Your task to perform on an android device: Open Google Chrome and open the bookmarks view Image 0: 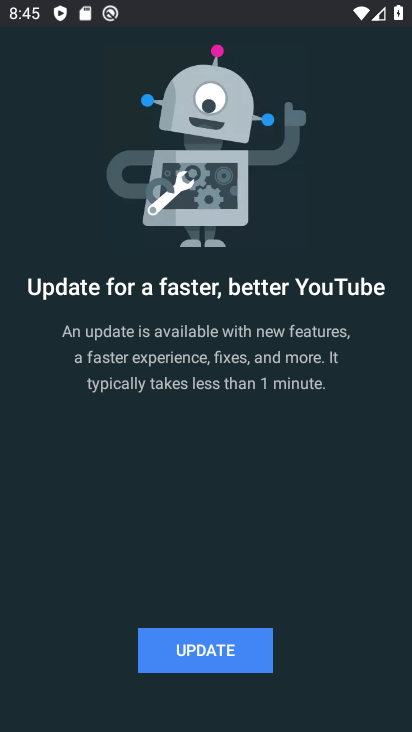
Step 0: press home button
Your task to perform on an android device: Open Google Chrome and open the bookmarks view Image 1: 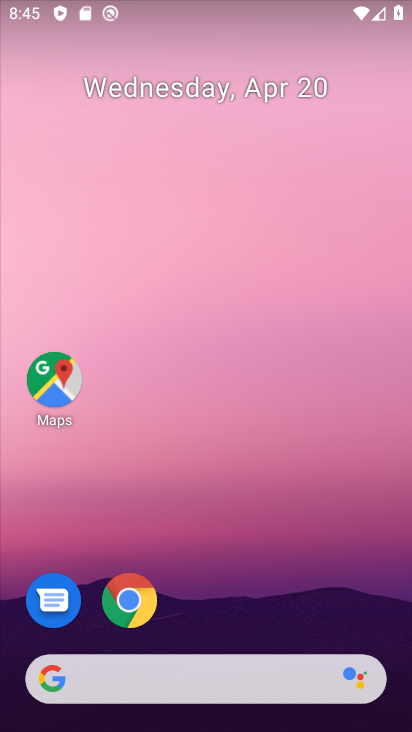
Step 1: click (140, 612)
Your task to perform on an android device: Open Google Chrome and open the bookmarks view Image 2: 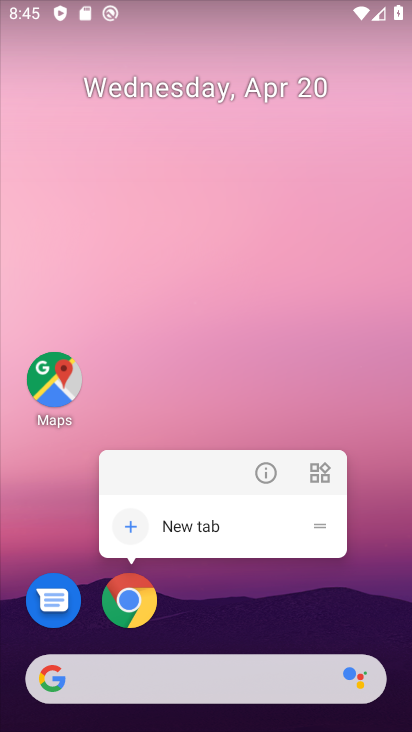
Step 2: click (140, 612)
Your task to perform on an android device: Open Google Chrome and open the bookmarks view Image 3: 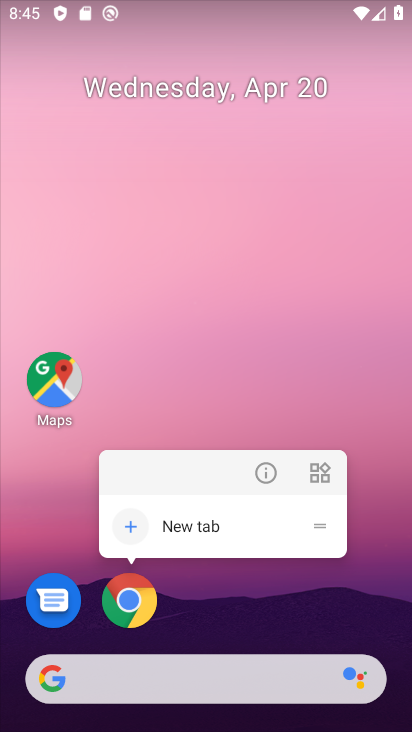
Step 3: click (140, 612)
Your task to perform on an android device: Open Google Chrome and open the bookmarks view Image 4: 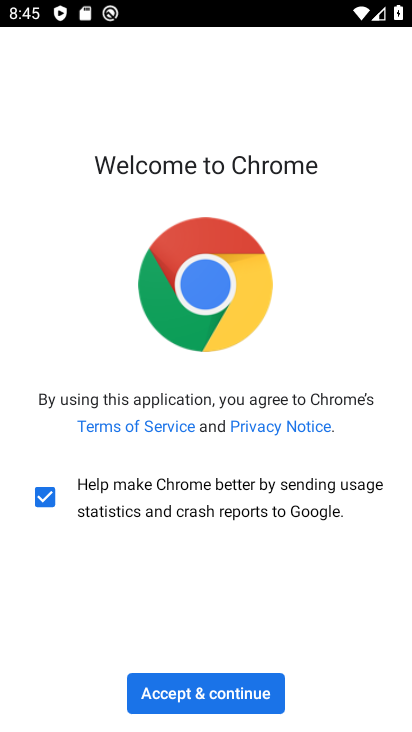
Step 4: click (196, 688)
Your task to perform on an android device: Open Google Chrome and open the bookmarks view Image 5: 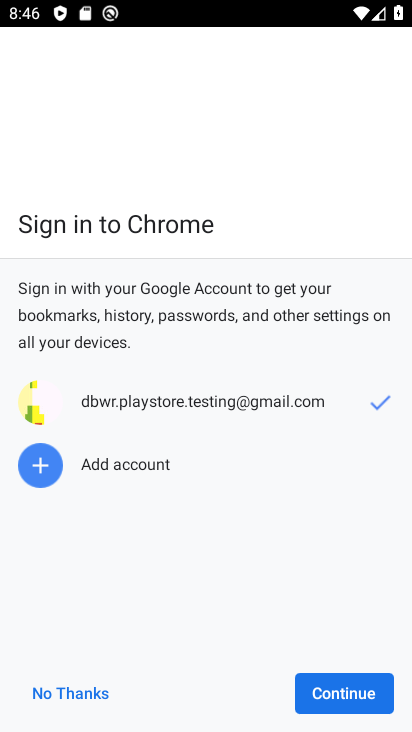
Step 5: click (307, 694)
Your task to perform on an android device: Open Google Chrome and open the bookmarks view Image 6: 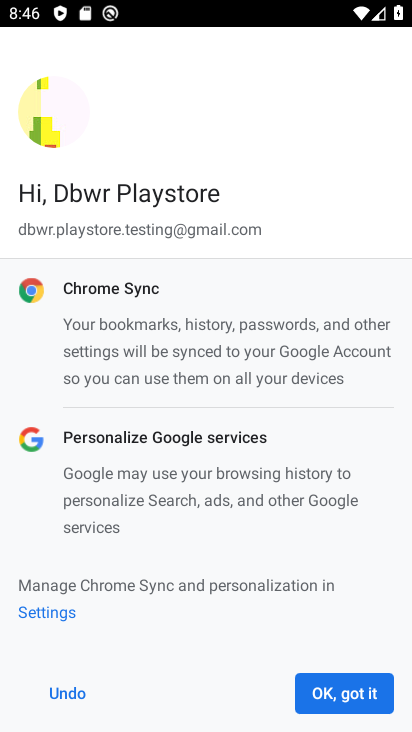
Step 6: click (307, 694)
Your task to perform on an android device: Open Google Chrome and open the bookmarks view Image 7: 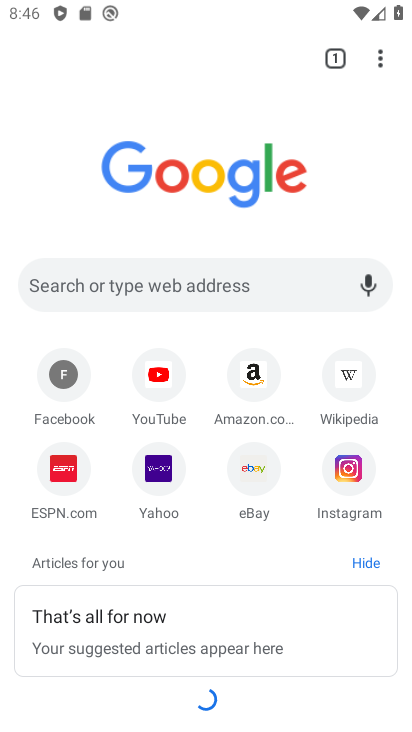
Step 7: click (386, 65)
Your task to perform on an android device: Open Google Chrome and open the bookmarks view Image 8: 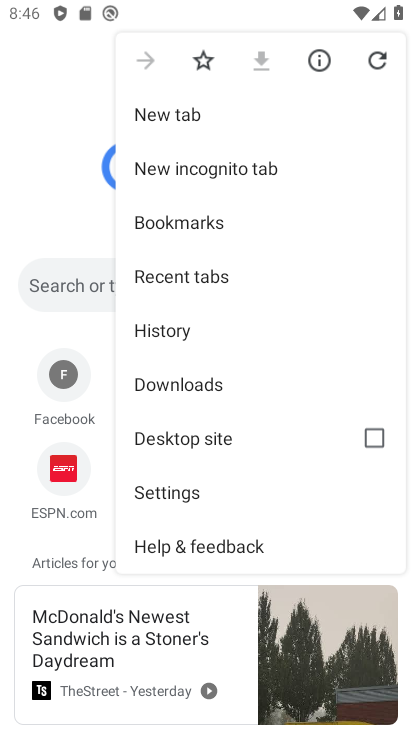
Step 8: click (211, 229)
Your task to perform on an android device: Open Google Chrome and open the bookmarks view Image 9: 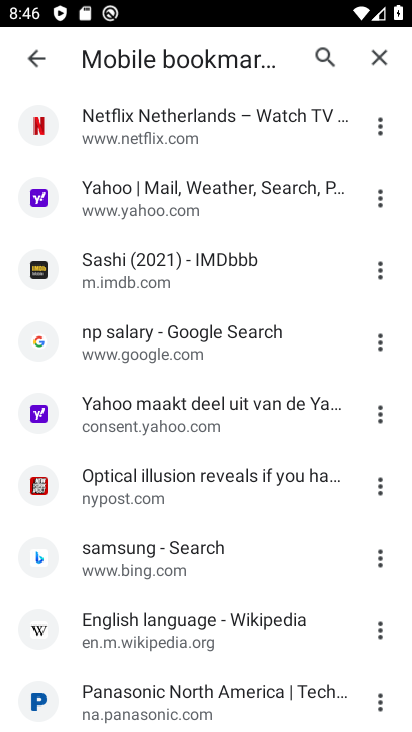
Step 9: click (238, 259)
Your task to perform on an android device: Open Google Chrome and open the bookmarks view Image 10: 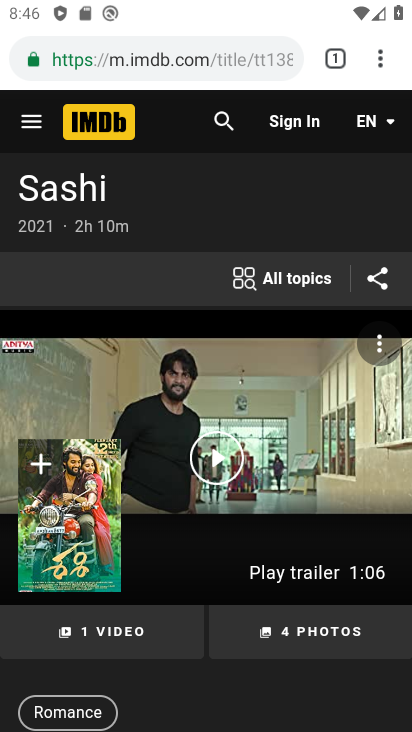
Step 10: task complete